Your task to perform on an android device: turn on priority inbox in the gmail app Image 0: 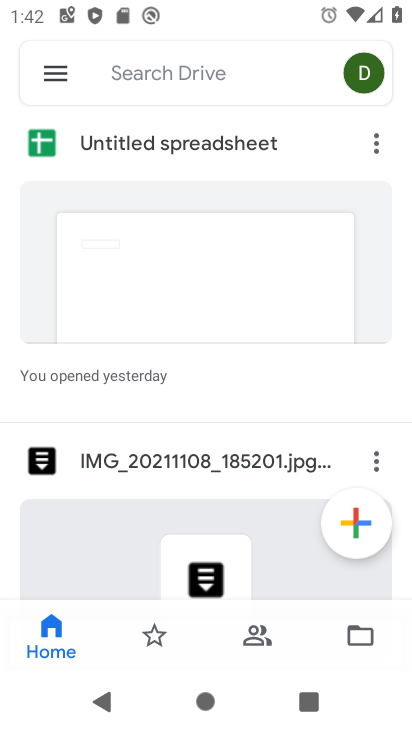
Step 0: press home button
Your task to perform on an android device: turn on priority inbox in the gmail app Image 1: 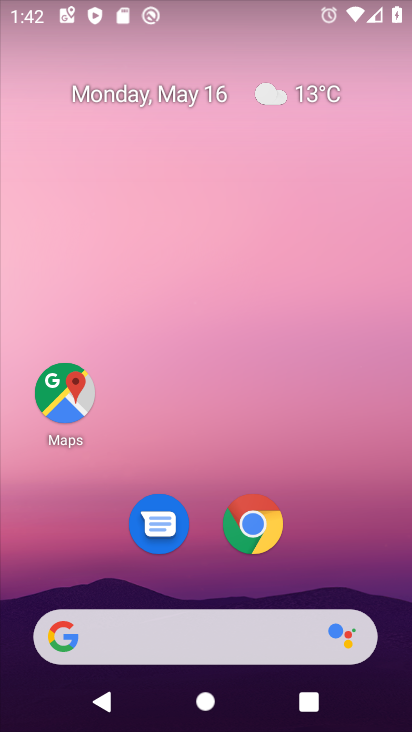
Step 1: drag from (313, 539) to (260, 79)
Your task to perform on an android device: turn on priority inbox in the gmail app Image 2: 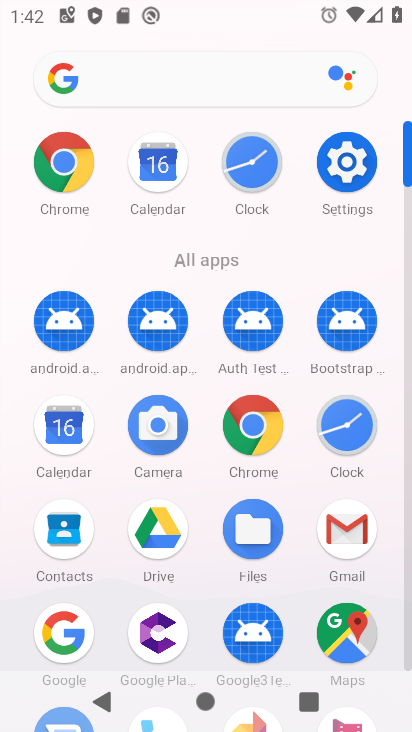
Step 2: click (337, 527)
Your task to perform on an android device: turn on priority inbox in the gmail app Image 3: 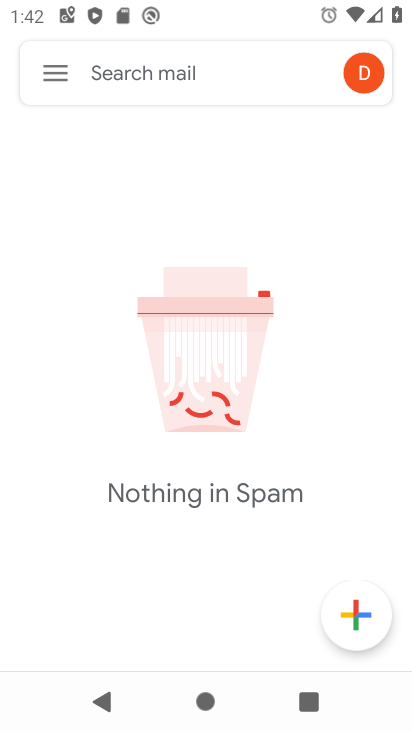
Step 3: click (50, 65)
Your task to perform on an android device: turn on priority inbox in the gmail app Image 4: 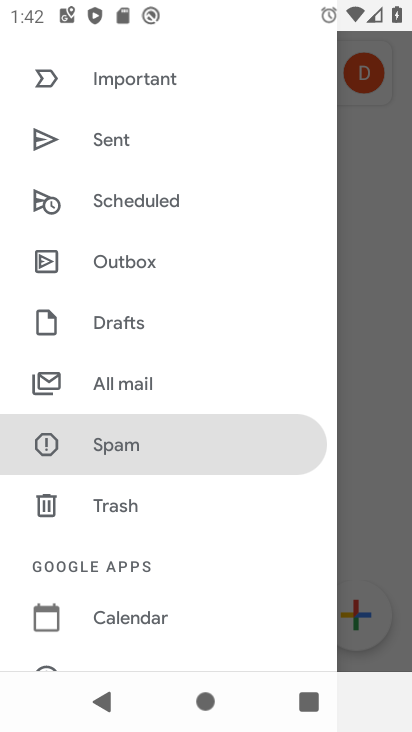
Step 4: drag from (182, 516) to (136, 90)
Your task to perform on an android device: turn on priority inbox in the gmail app Image 5: 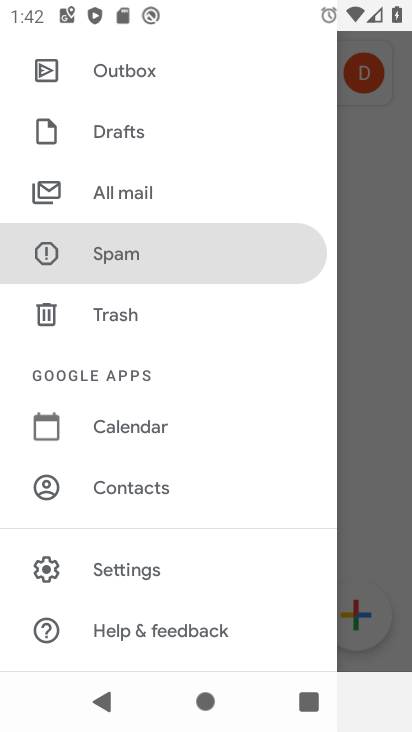
Step 5: click (142, 564)
Your task to perform on an android device: turn on priority inbox in the gmail app Image 6: 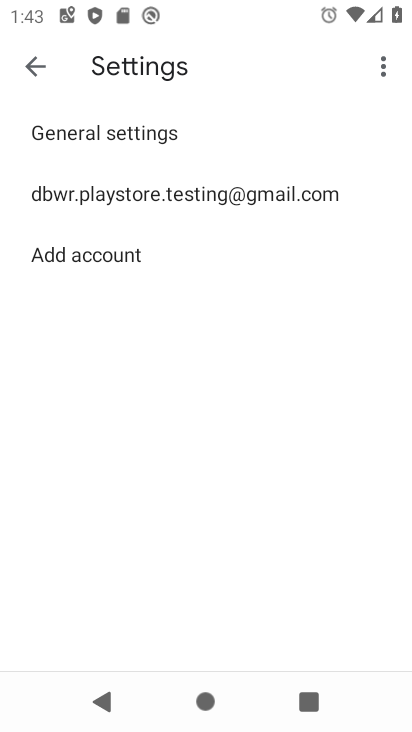
Step 6: click (205, 191)
Your task to perform on an android device: turn on priority inbox in the gmail app Image 7: 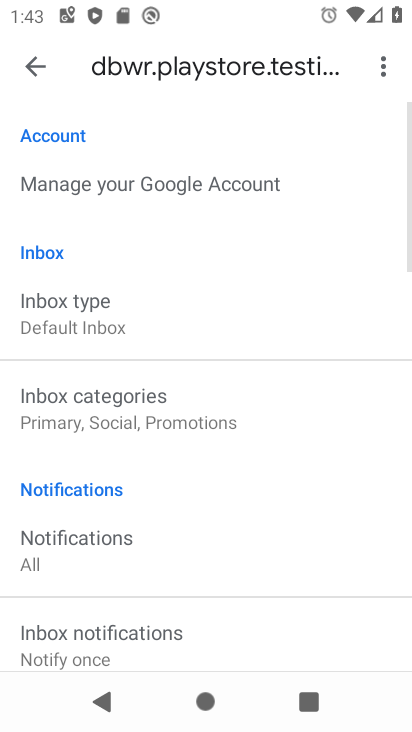
Step 7: click (99, 310)
Your task to perform on an android device: turn on priority inbox in the gmail app Image 8: 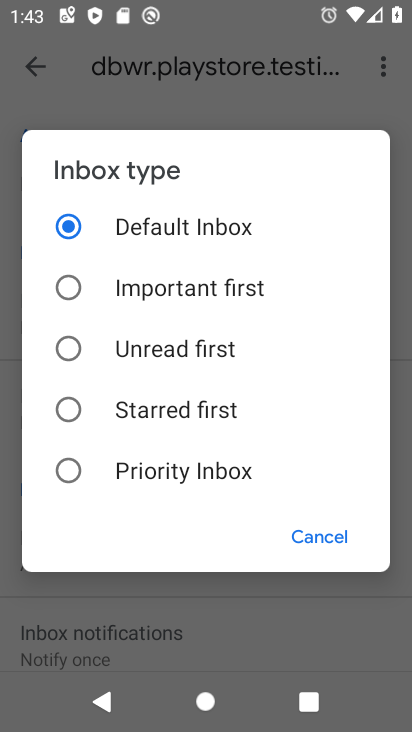
Step 8: click (70, 468)
Your task to perform on an android device: turn on priority inbox in the gmail app Image 9: 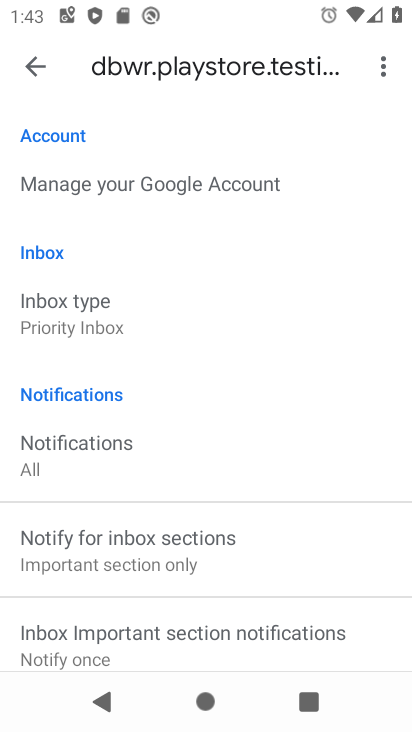
Step 9: task complete